Your task to perform on an android device: Play the last video I watched on Youtube Image 0: 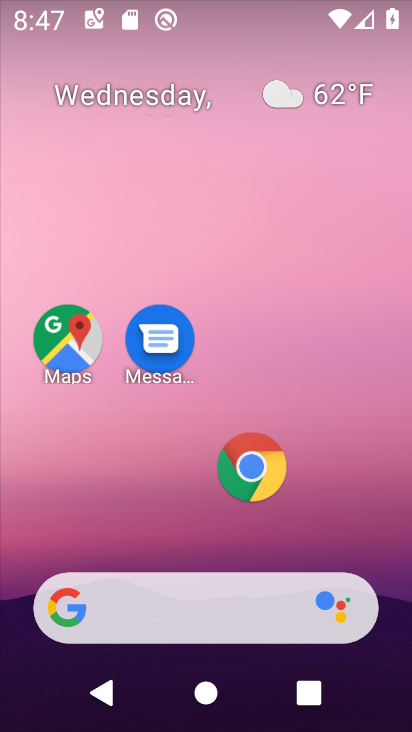
Step 0: drag from (209, 505) to (226, 75)
Your task to perform on an android device: Play the last video I watched on Youtube Image 1: 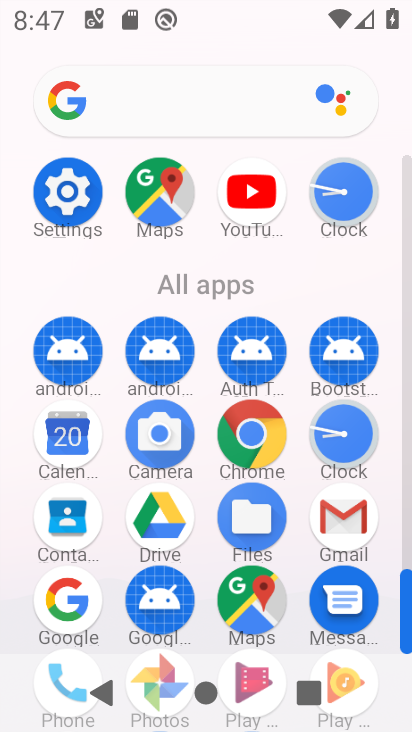
Step 1: click (248, 202)
Your task to perform on an android device: Play the last video I watched on Youtube Image 2: 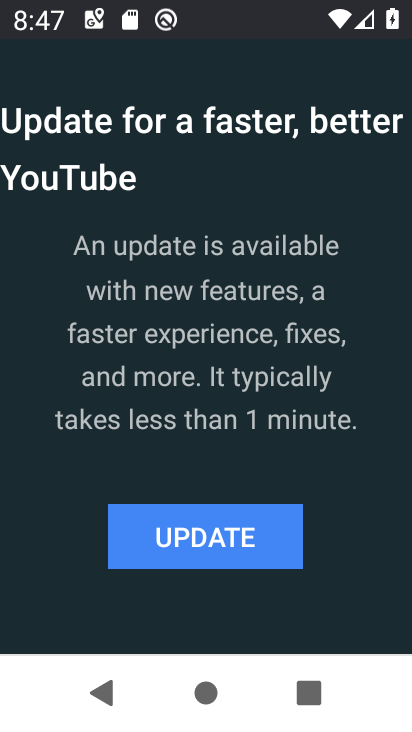
Step 2: click (203, 544)
Your task to perform on an android device: Play the last video I watched on Youtube Image 3: 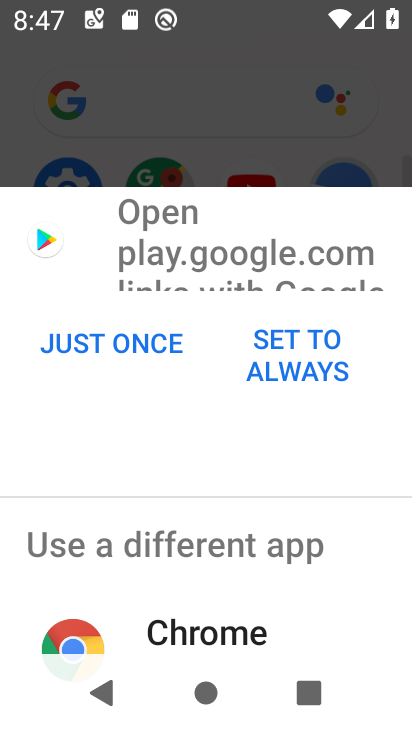
Step 3: drag from (248, 585) to (252, 373)
Your task to perform on an android device: Play the last video I watched on Youtube Image 4: 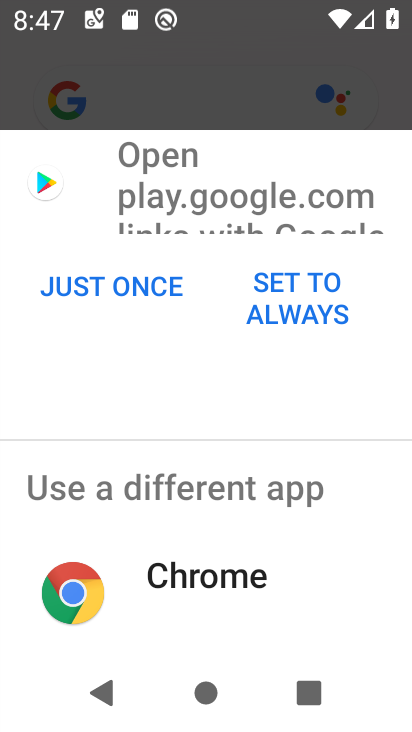
Step 4: click (214, 581)
Your task to perform on an android device: Play the last video I watched on Youtube Image 5: 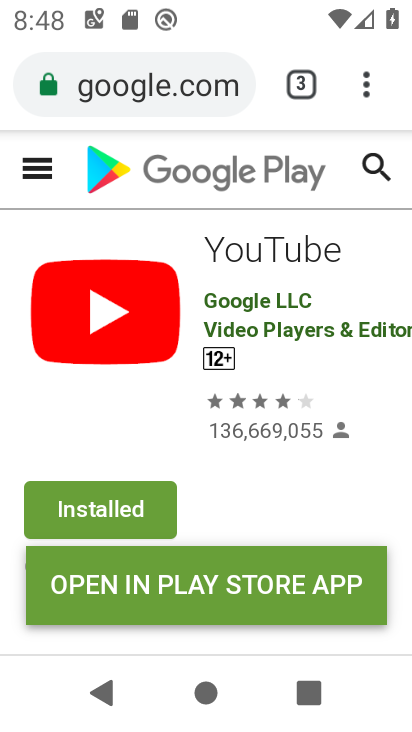
Step 5: drag from (253, 431) to (242, 266)
Your task to perform on an android device: Play the last video I watched on Youtube Image 6: 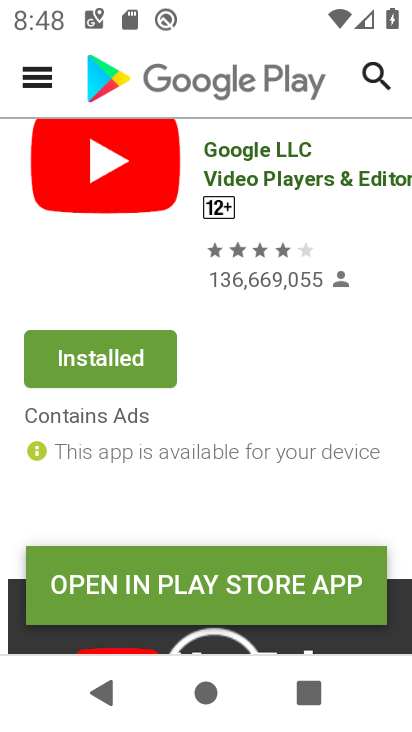
Step 6: click (160, 591)
Your task to perform on an android device: Play the last video I watched on Youtube Image 7: 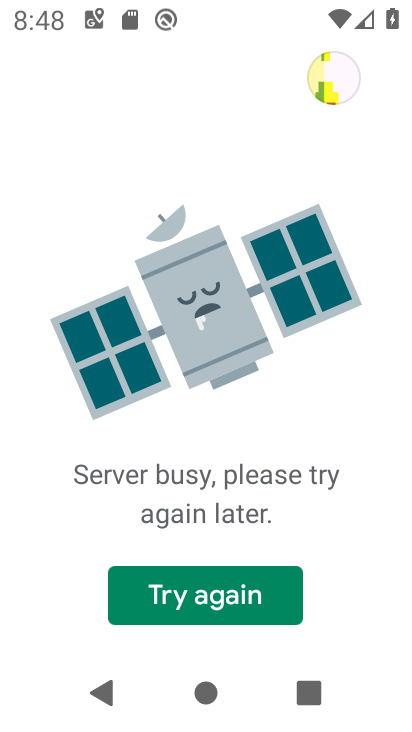
Step 7: task complete